Your task to perform on an android device: See recent photos Image 0: 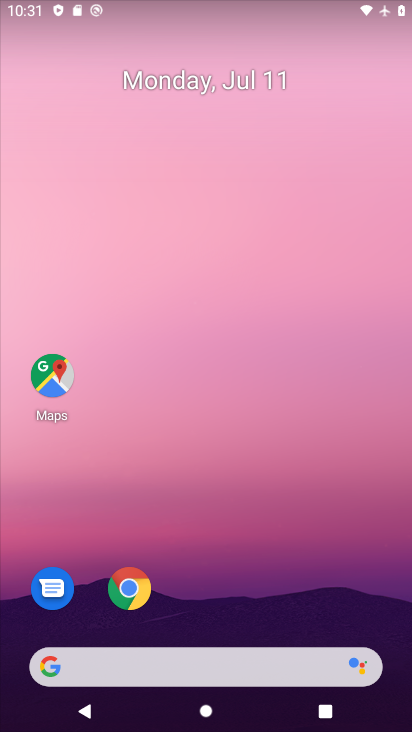
Step 0: drag from (180, 661) to (287, 131)
Your task to perform on an android device: See recent photos Image 1: 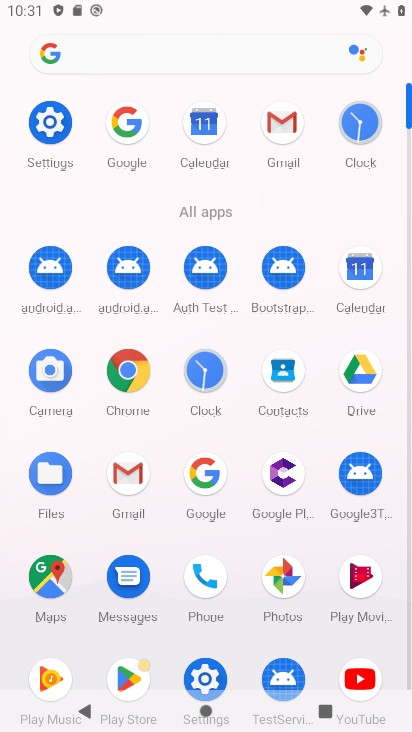
Step 1: click (275, 566)
Your task to perform on an android device: See recent photos Image 2: 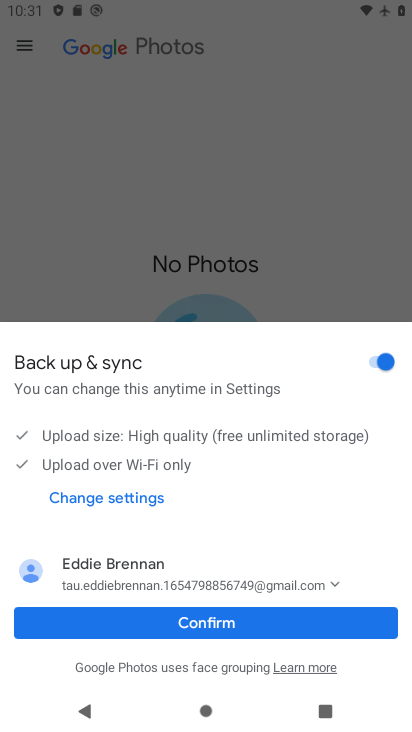
Step 2: click (202, 625)
Your task to perform on an android device: See recent photos Image 3: 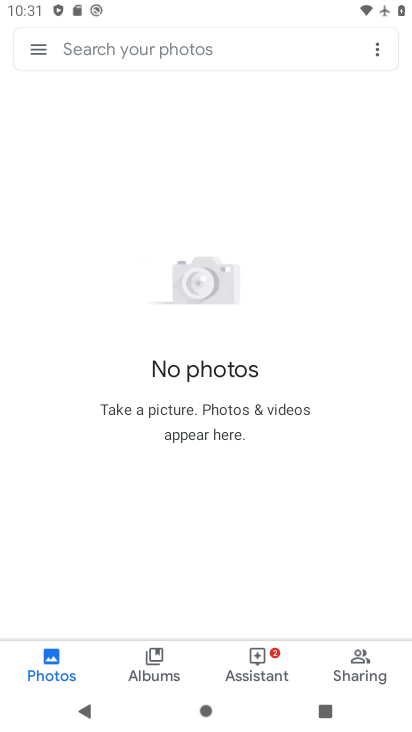
Step 3: task complete